Your task to perform on an android device: Search for sushi restaurants on Maps Image 0: 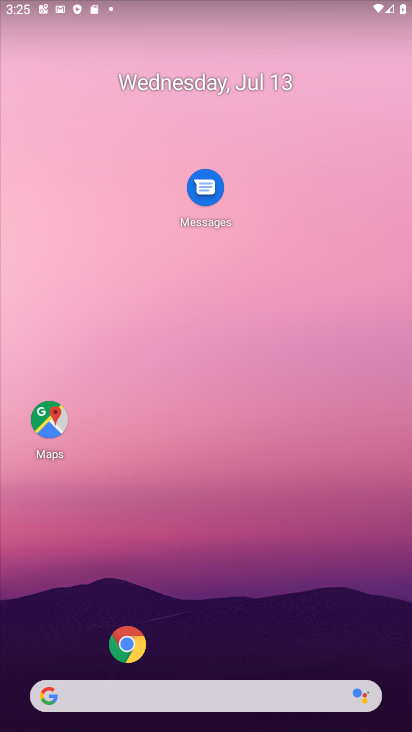
Step 0: click (58, 418)
Your task to perform on an android device: Search for sushi restaurants on Maps Image 1: 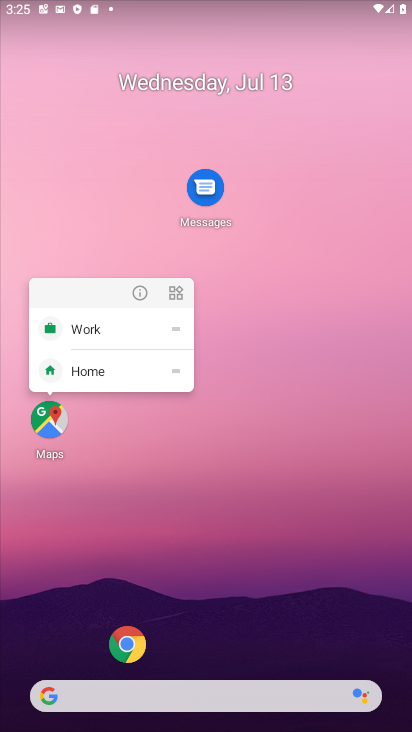
Step 1: click (121, 701)
Your task to perform on an android device: Search for sushi restaurants on Maps Image 2: 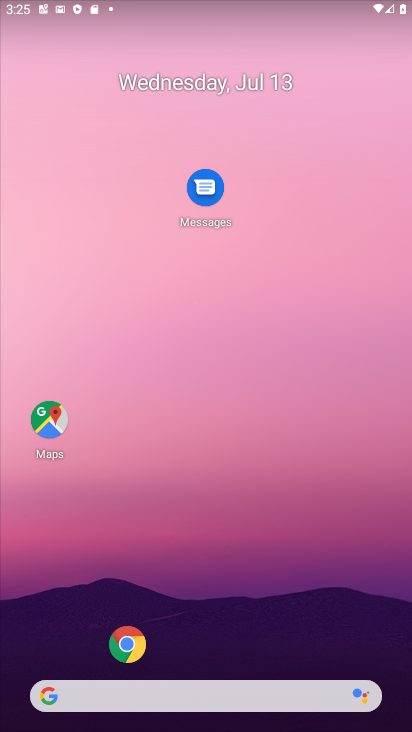
Step 2: click (39, 434)
Your task to perform on an android device: Search for sushi restaurants on Maps Image 3: 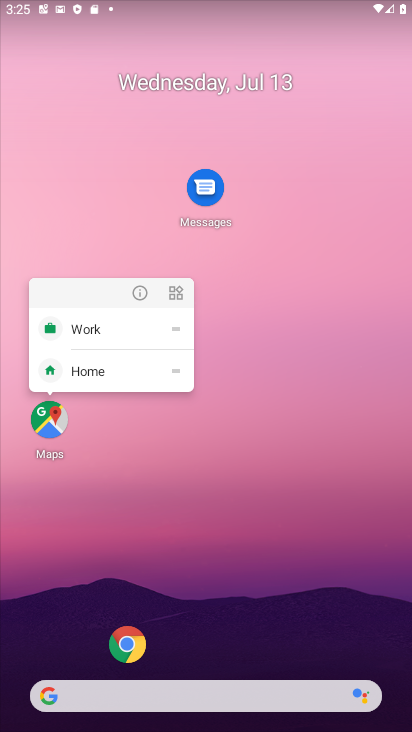
Step 3: task complete